Your task to perform on an android device: Open Wikipedia Image 0: 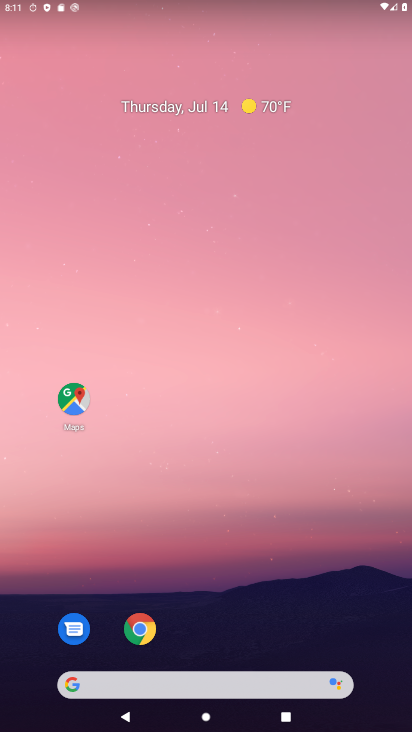
Step 0: drag from (237, 598) to (276, 0)
Your task to perform on an android device: Open Wikipedia Image 1: 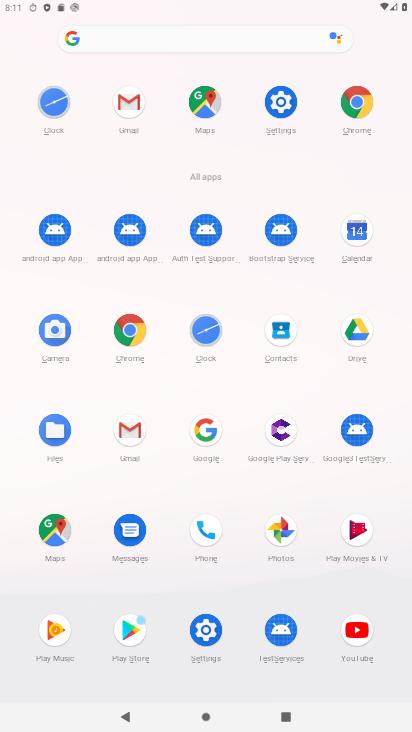
Step 1: click (355, 118)
Your task to perform on an android device: Open Wikipedia Image 2: 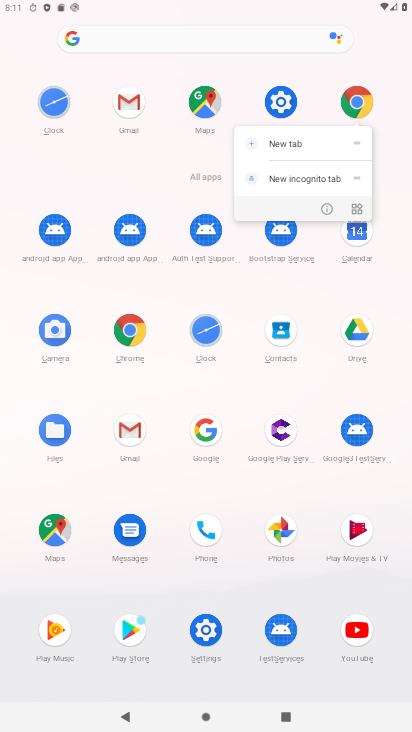
Step 2: click (355, 118)
Your task to perform on an android device: Open Wikipedia Image 3: 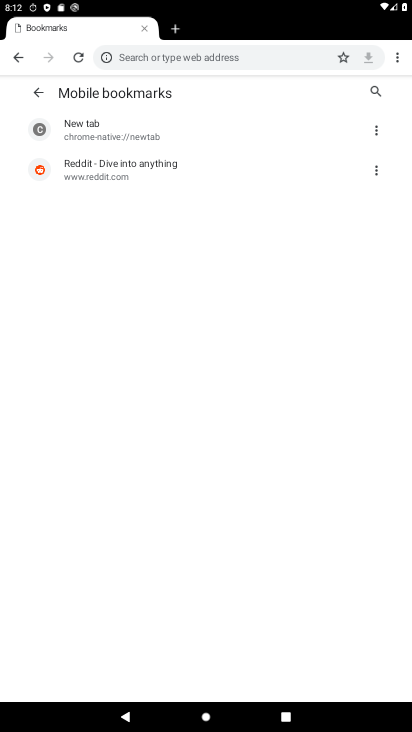
Step 3: click (174, 28)
Your task to perform on an android device: Open Wikipedia Image 4: 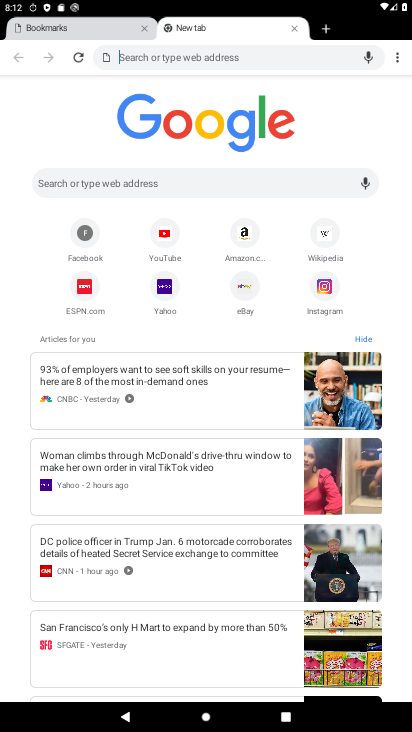
Step 4: click (325, 230)
Your task to perform on an android device: Open Wikipedia Image 5: 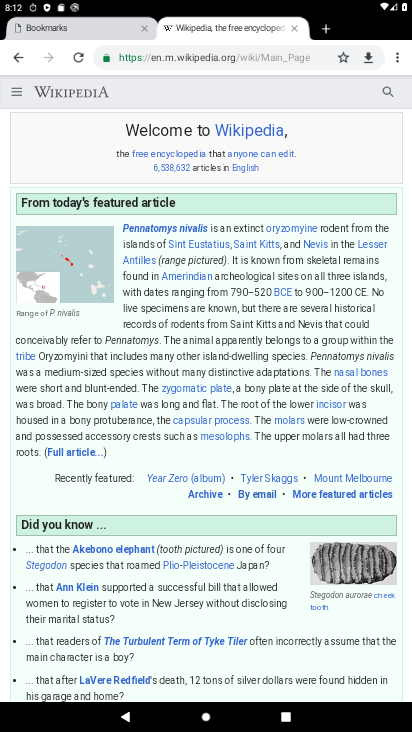
Step 5: task complete